Your task to perform on an android device: Play the last video I watched on Youtube Image 0: 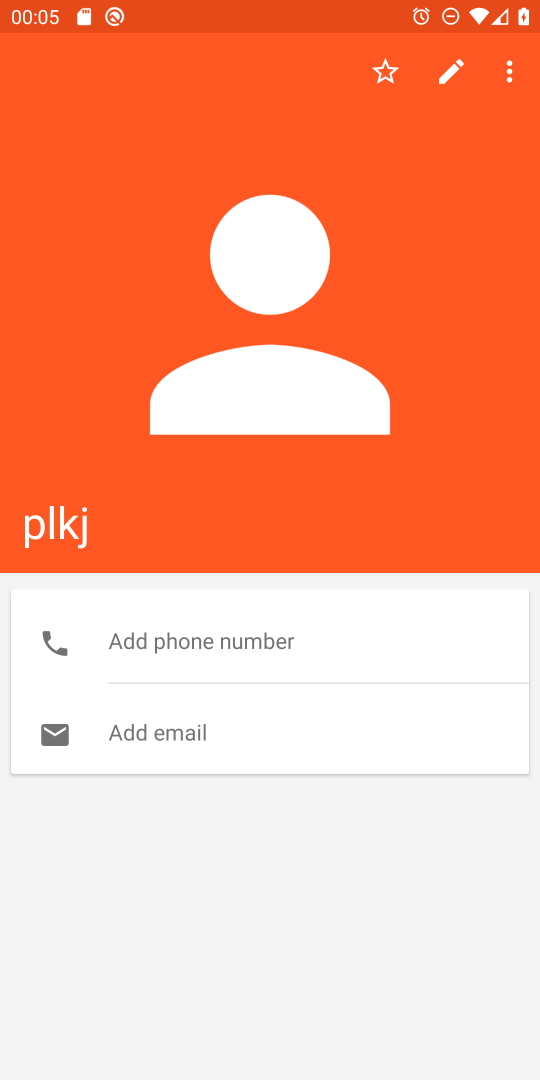
Step 0: press home button
Your task to perform on an android device: Play the last video I watched on Youtube Image 1: 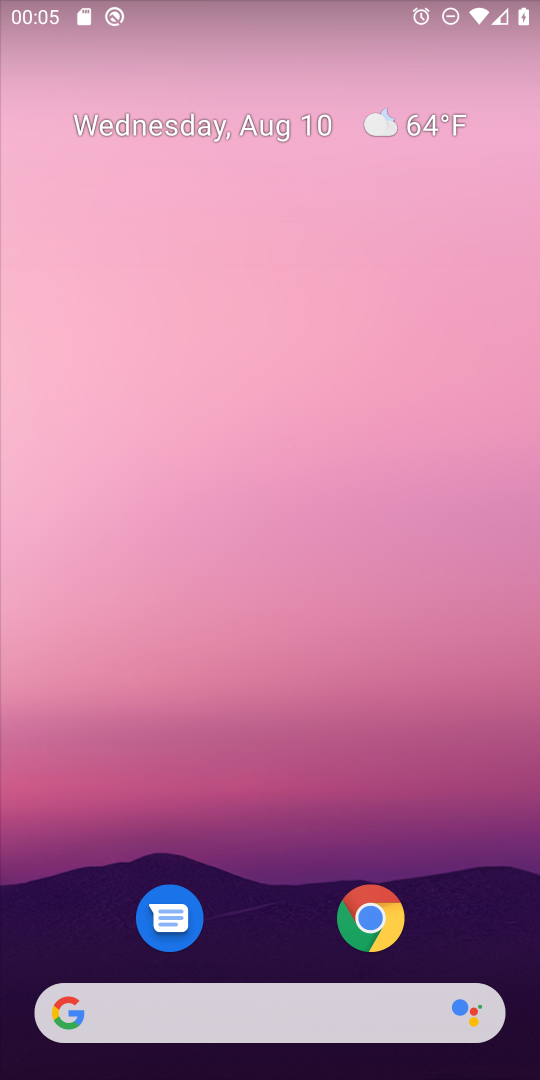
Step 1: drag from (230, 949) to (407, 293)
Your task to perform on an android device: Play the last video I watched on Youtube Image 2: 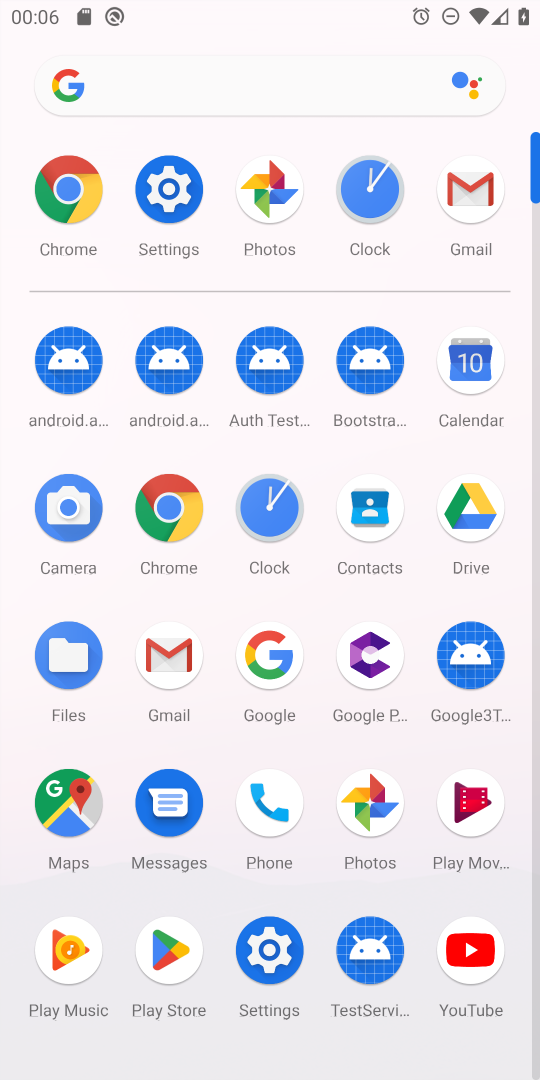
Step 2: click (464, 949)
Your task to perform on an android device: Play the last video I watched on Youtube Image 3: 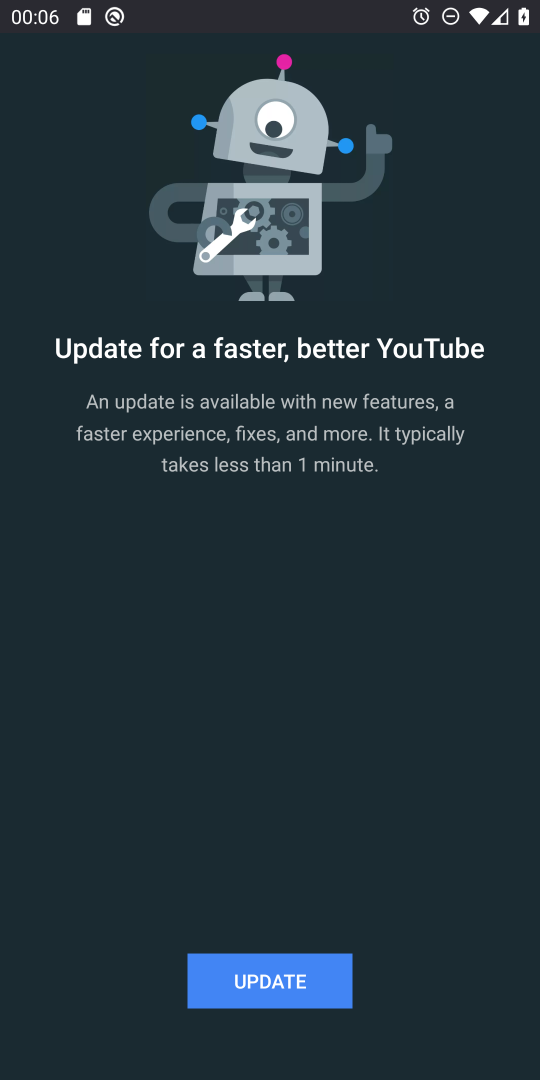
Step 3: click (308, 985)
Your task to perform on an android device: Play the last video I watched on Youtube Image 4: 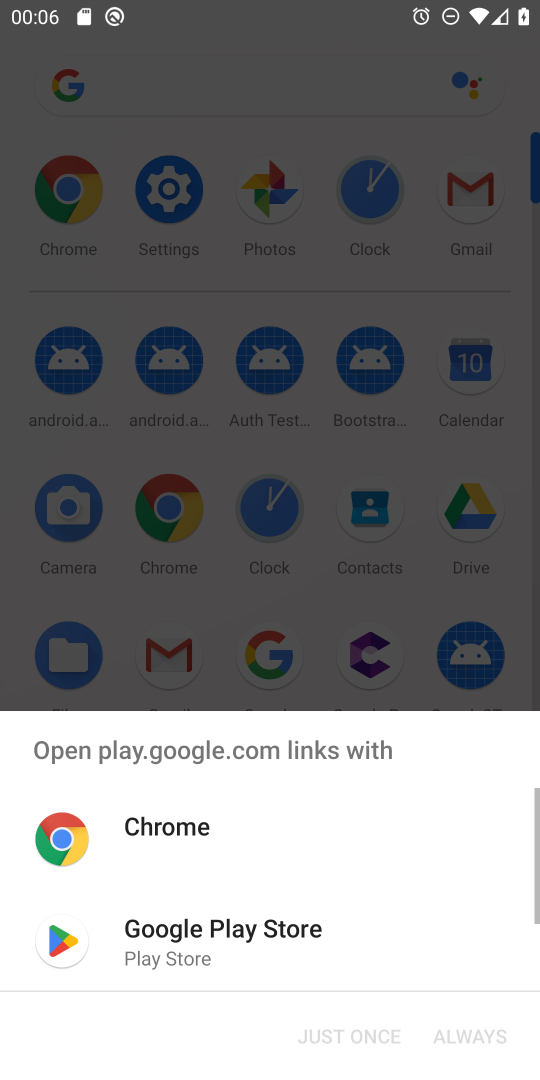
Step 4: click (138, 917)
Your task to perform on an android device: Play the last video I watched on Youtube Image 5: 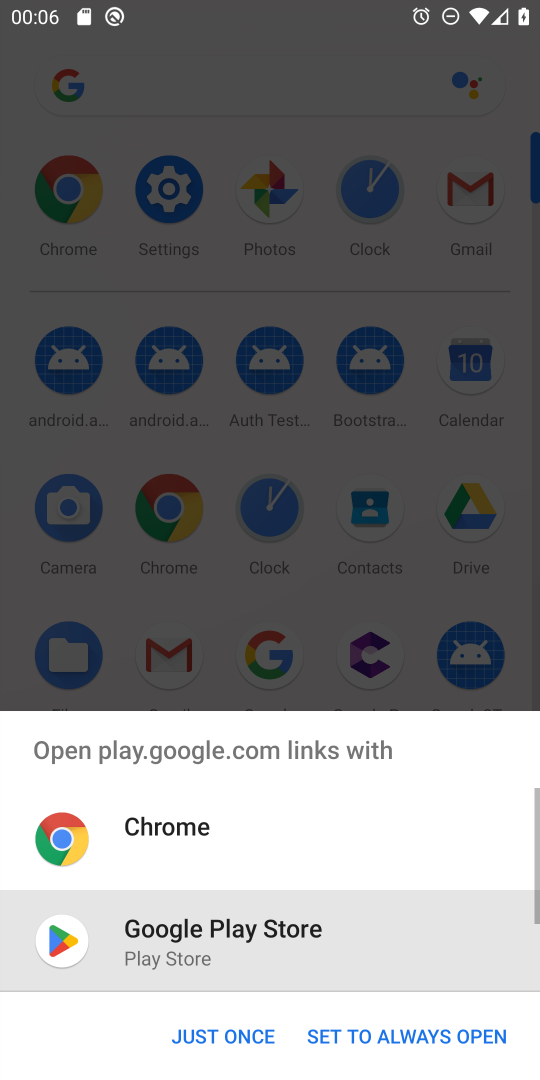
Step 5: click (216, 1031)
Your task to perform on an android device: Play the last video I watched on Youtube Image 6: 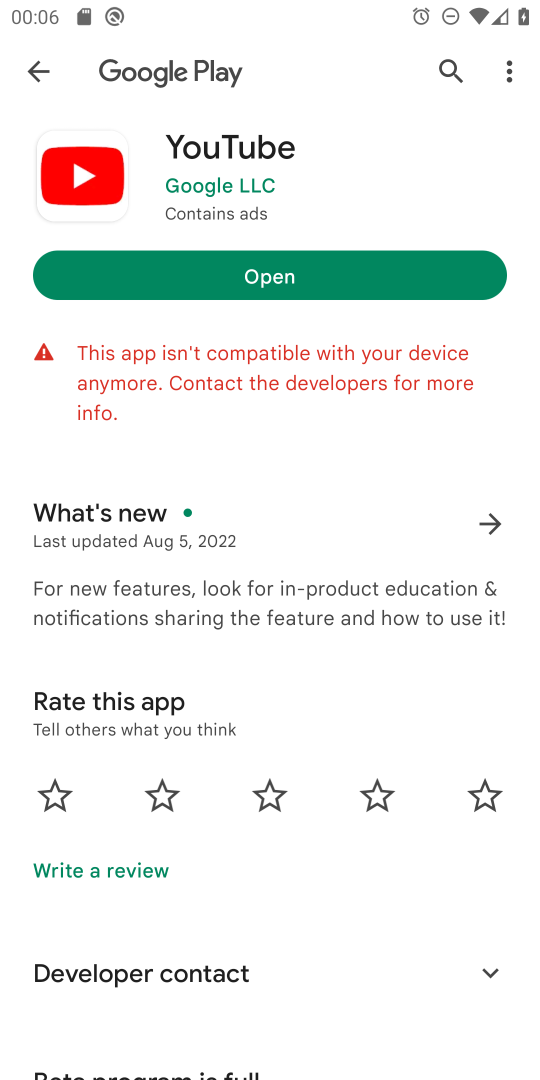
Step 6: task complete